Your task to perform on an android device: install app "Flipkart Online Shopping App" Image 0: 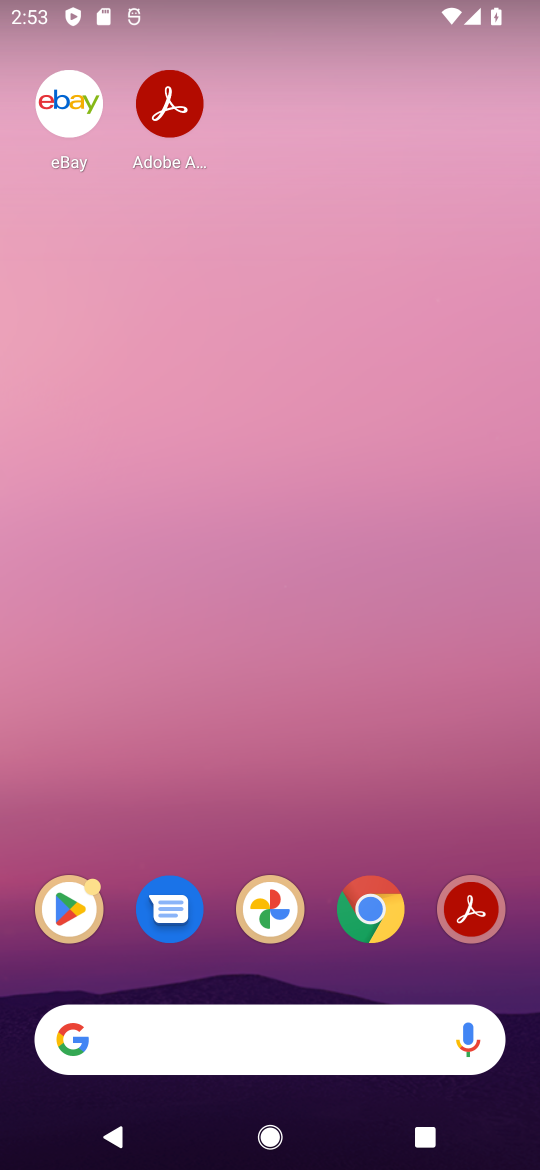
Step 0: click (59, 913)
Your task to perform on an android device: install app "Flipkart Online Shopping App" Image 1: 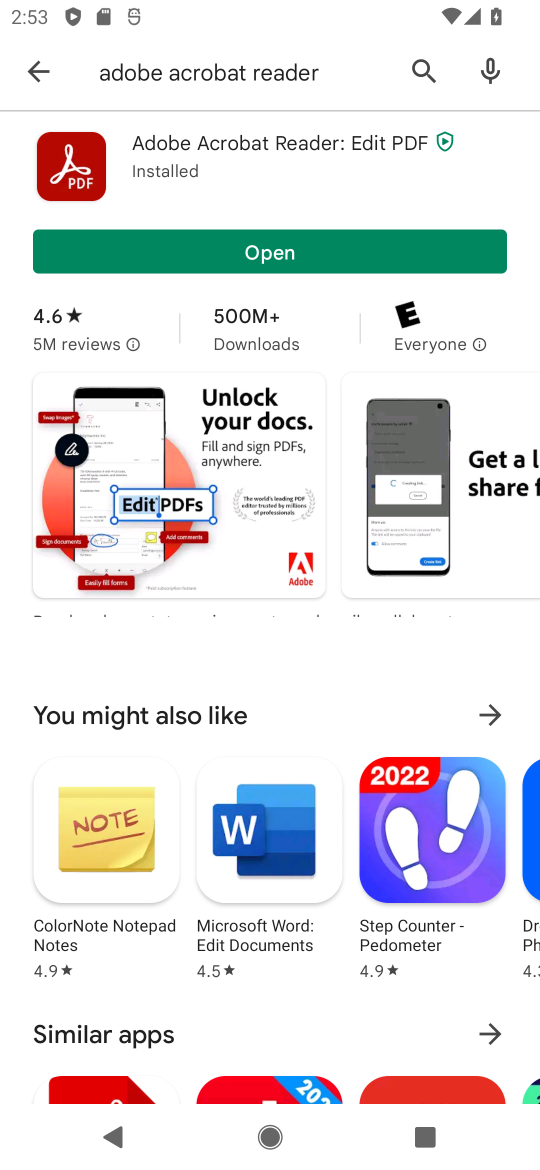
Step 1: click (415, 66)
Your task to perform on an android device: install app "Flipkart Online Shopping App" Image 2: 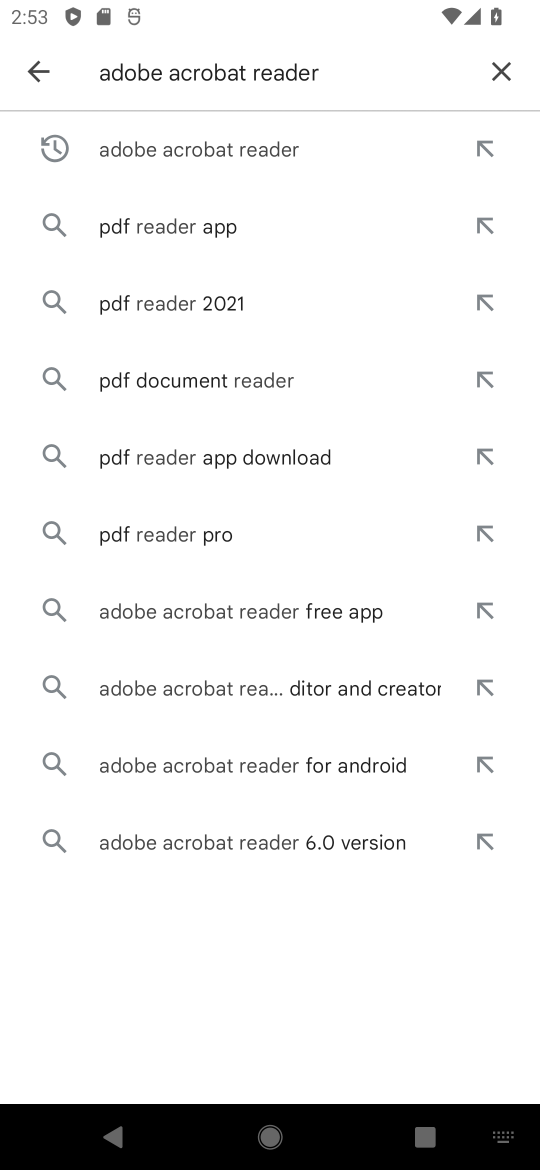
Step 2: click (489, 73)
Your task to perform on an android device: install app "Flipkart Online Shopping App" Image 3: 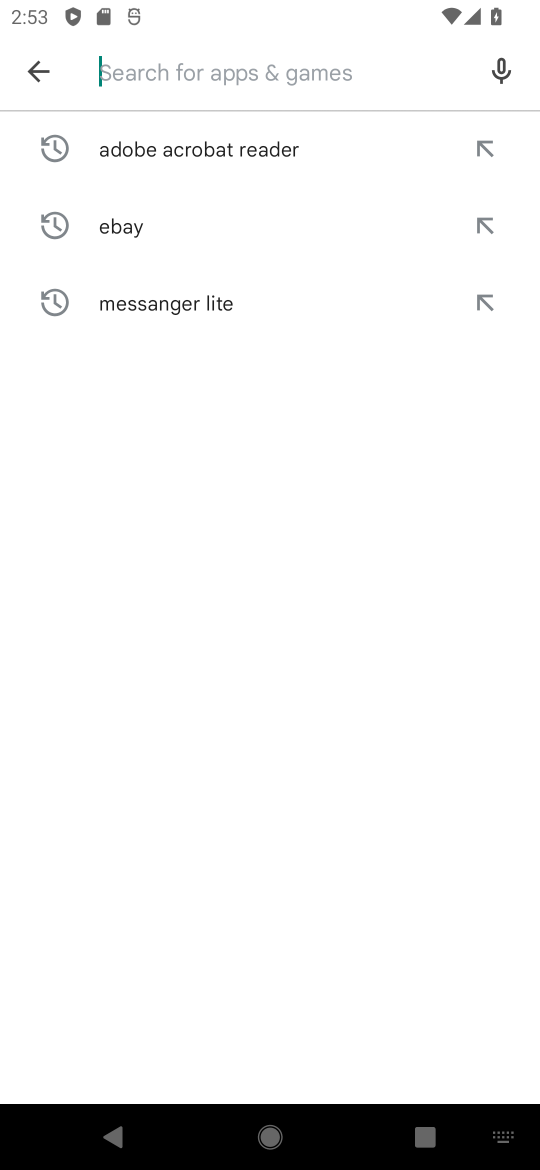
Step 3: type "flipkart"
Your task to perform on an android device: install app "Flipkart Online Shopping App" Image 4: 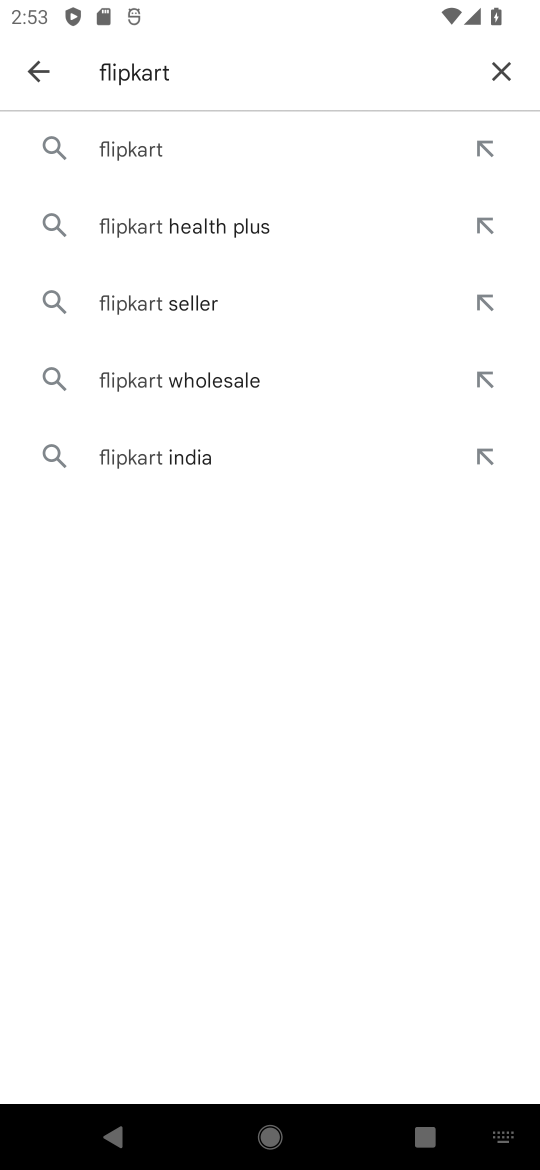
Step 4: click (136, 151)
Your task to perform on an android device: install app "Flipkart Online Shopping App" Image 5: 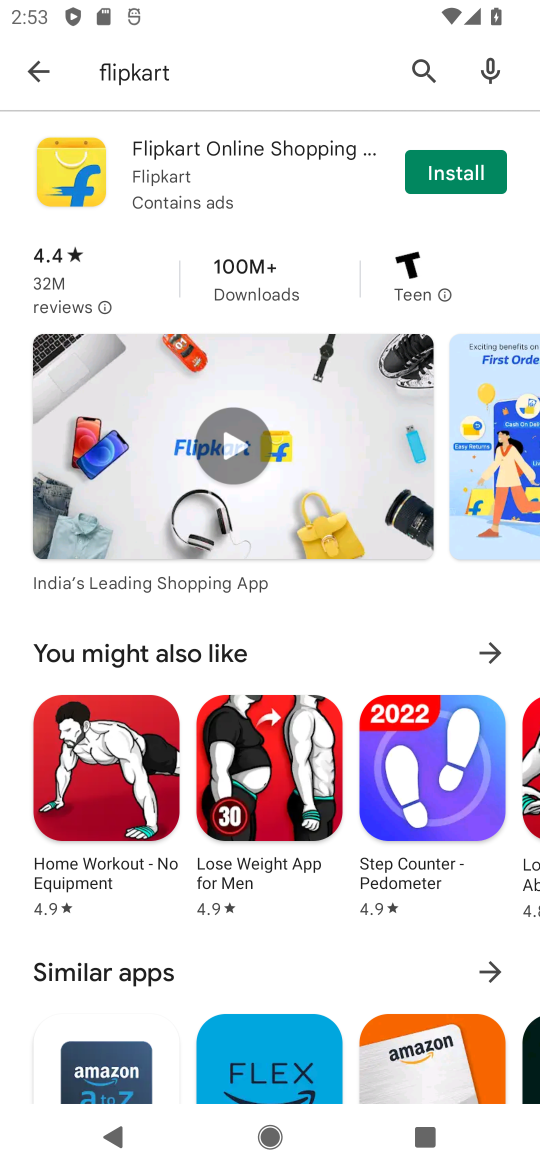
Step 5: click (453, 174)
Your task to perform on an android device: install app "Flipkart Online Shopping App" Image 6: 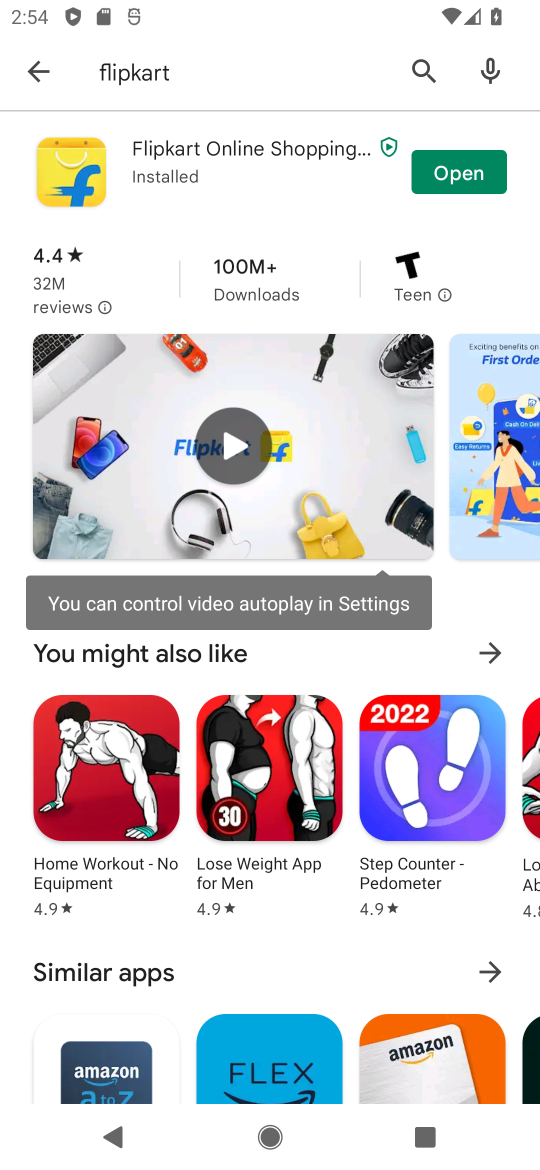
Step 6: task complete